Your task to perform on an android device: Open Chrome and go to settings Image 0: 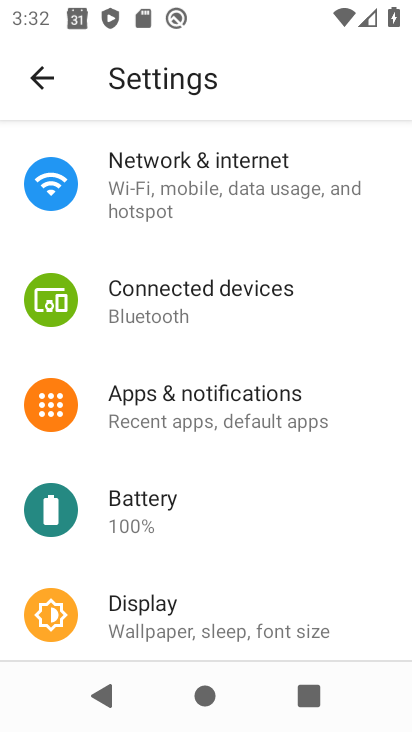
Step 0: press home button
Your task to perform on an android device: Open Chrome and go to settings Image 1: 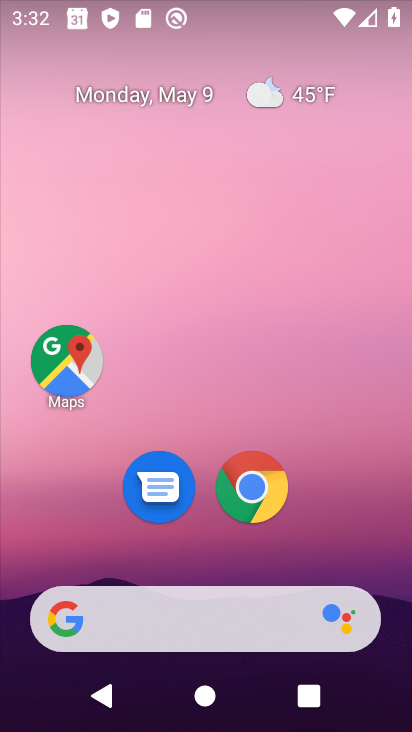
Step 1: click (253, 486)
Your task to perform on an android device: Open Chrome and go to settings Image 2: 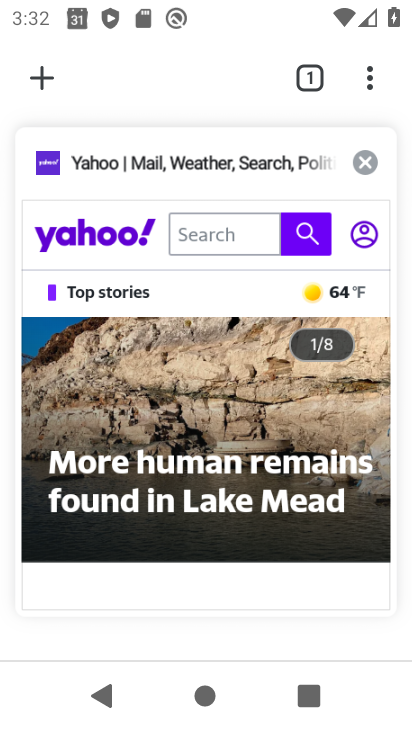
Step 2: click (368, 77)
Your task to perform on an android device: Open Chrome and go to settings Image 3: 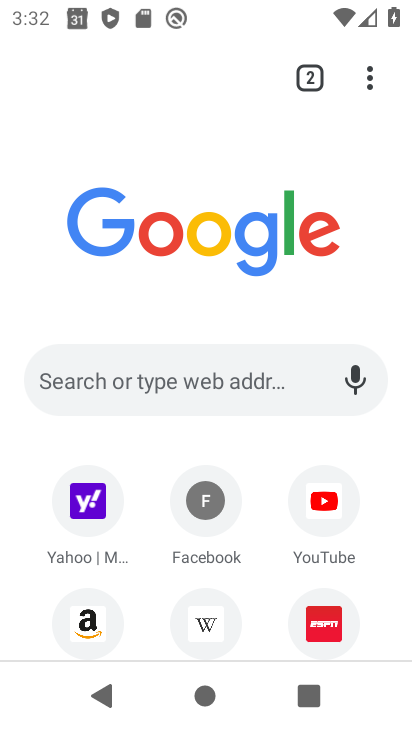
Step 3: click (370, 89)
Your task to perform on an android device: Open Chrome and go to settings Image 4: 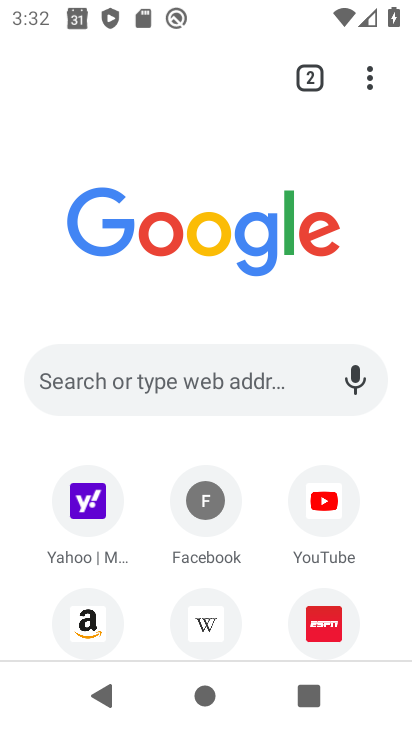
Step 4: click (370, 78)
Your task to perform on an android device: Open Chrome and go to settings Image 5: 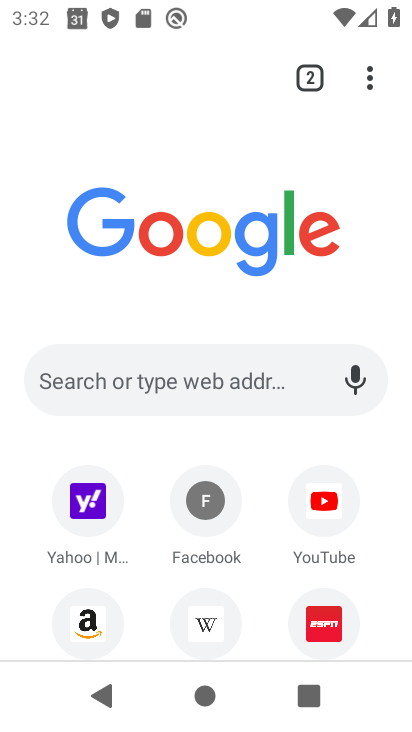
Step 5: click (370, 78)
Your task to perform on an android device: Open Chrome and go to settings Image 6: 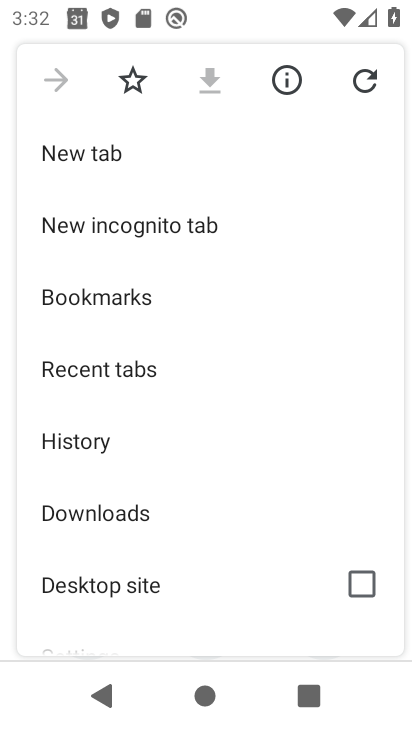
Step 6: drag from (157, 556) to (135, 195)
Your task to perform on an android device: Open Chrome and go to settings Image 7: 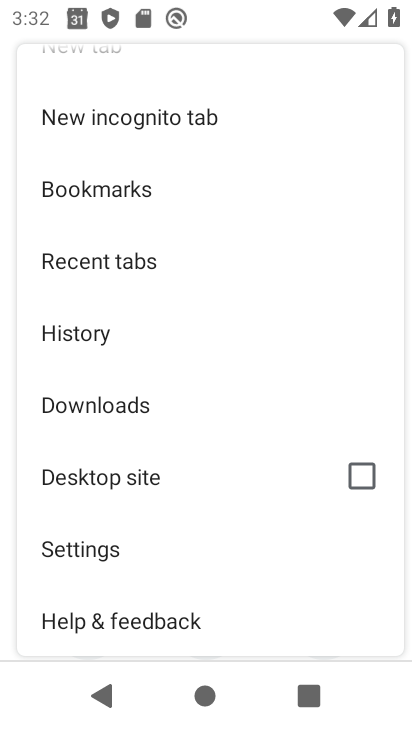
Step 7: click (94, 543)
Your task to perform on an android device: Open Chrome and go to settings Image 8: 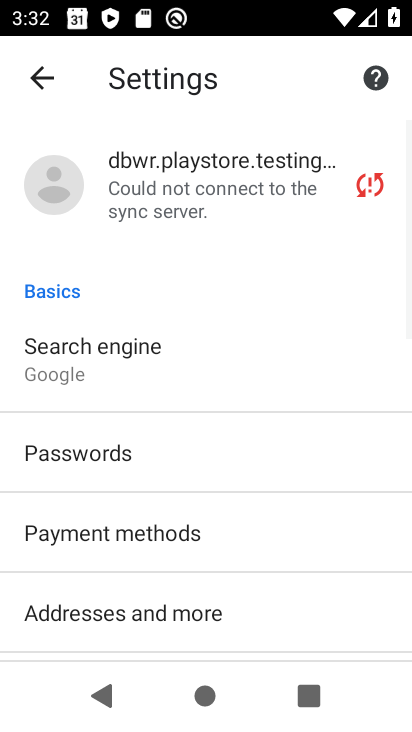
Step 8: task complete